Your task to perform on an android device: show emergency info Image 0: 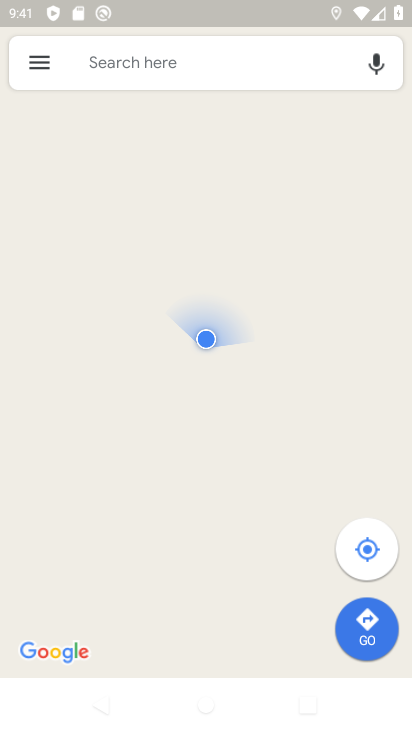
Step 0: press home button
Your task to perform on an android device: show emergency info Image 1: 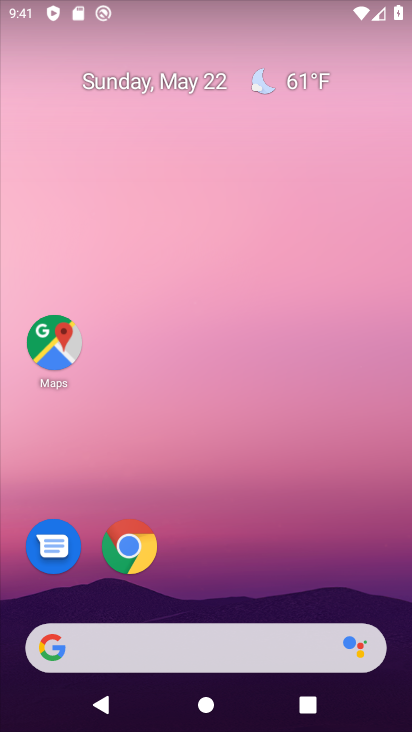
Step 1: drag from (227, 639) to (278, 109)
Your task to perform on an android device: show emergency info Image 2: 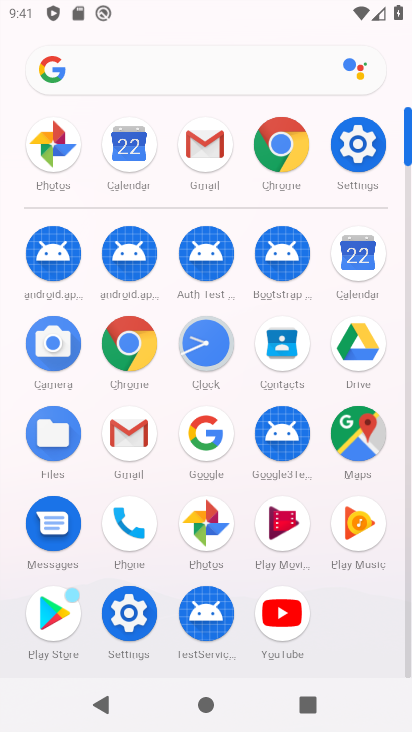
Step 2: click (355, 152)
Your task to perform on an android device: show emergency info Image 3: 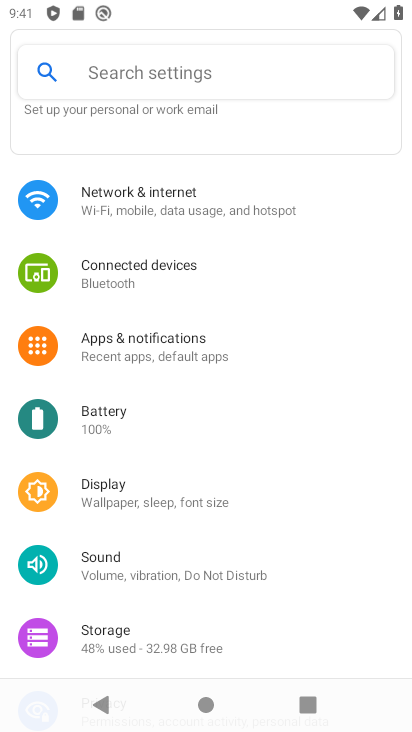
Step 3: drag from (138, 635) to (103, 14)
Your task to perform on an android device: show emergency info Image 4: 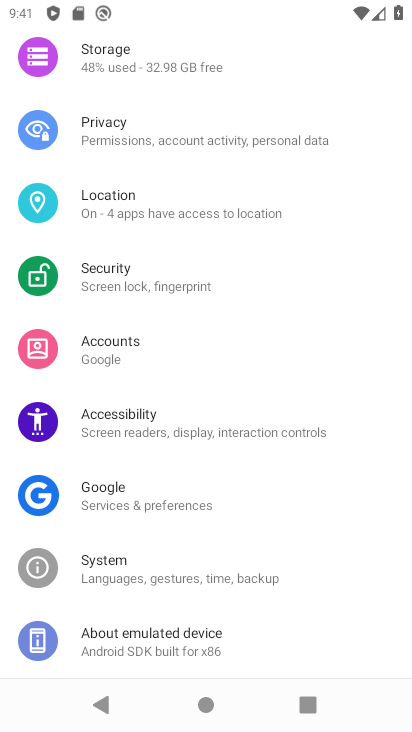
Step 4: click (190, 629)
Your task to perform on an android device: show emergency info Image 5: 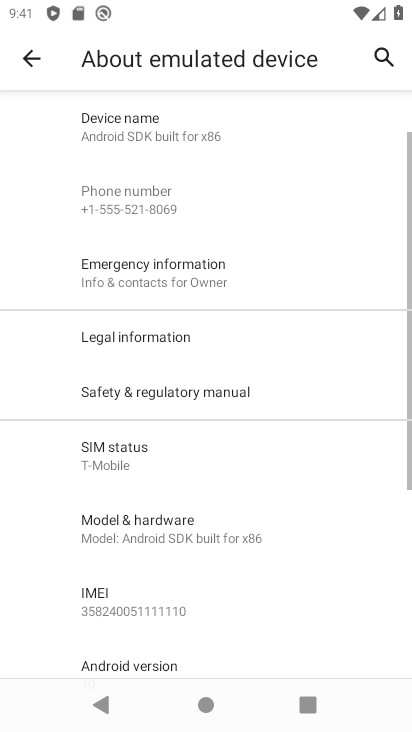
Step 5: click (143, 260)
Your task to perform on an android device: show emergency info Image 6: 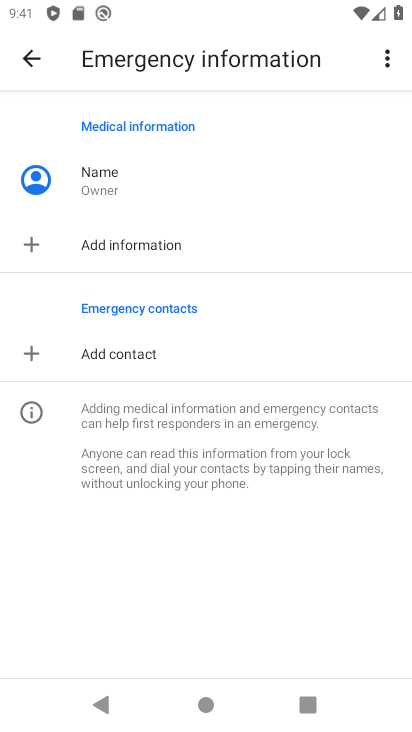
Step 6: task complete